Your task to perform on an android device: Search for seafood restaurants on Google Maps Image 0: 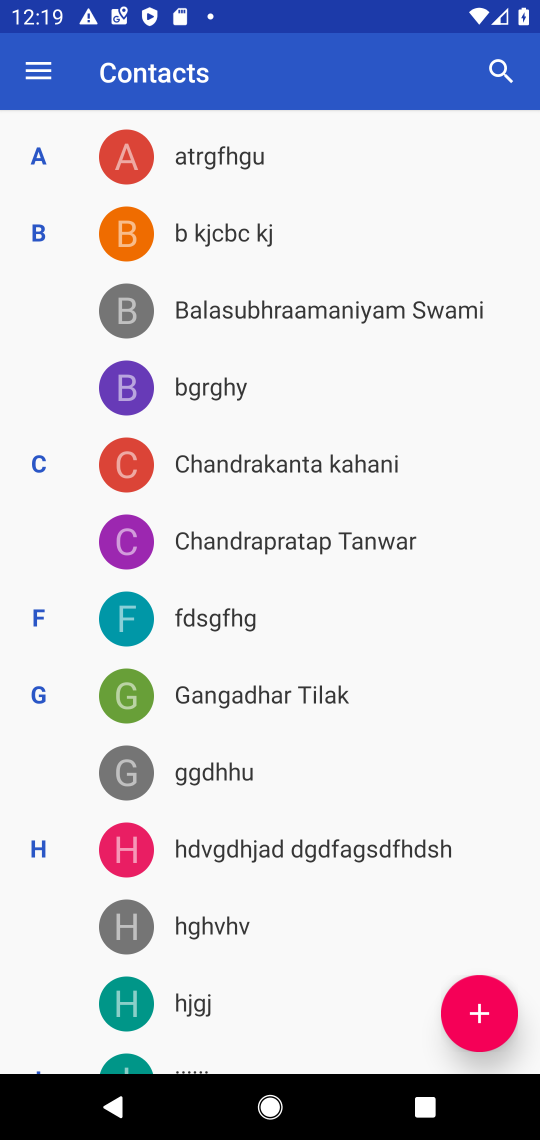
Step 0: press home button
Your task to perform on an android device: Search for seafood restaurants on Google Maps Image 1: 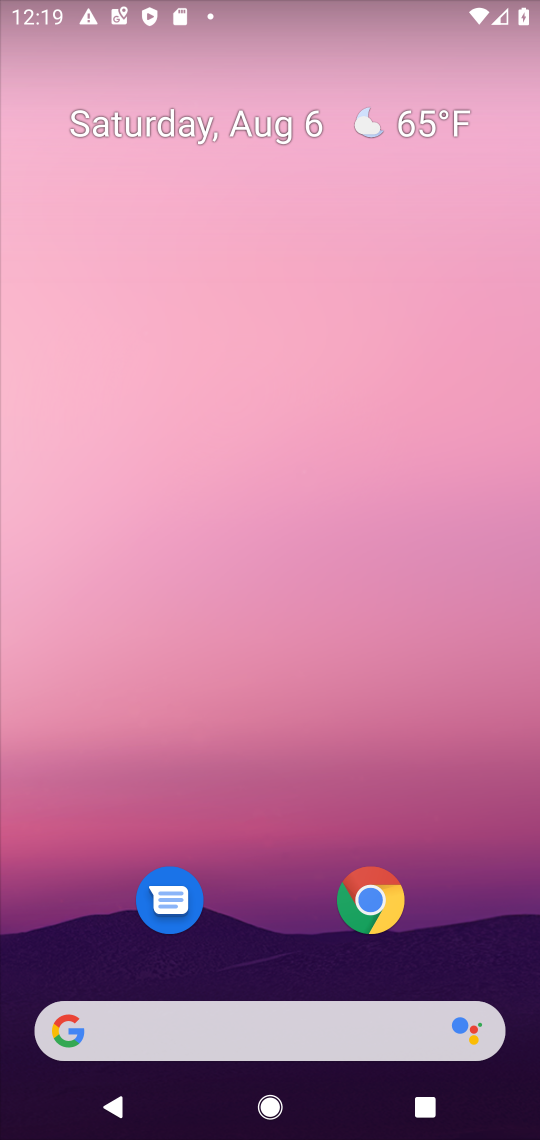
Step 1: drag from (274, 679) to (295, 120)
Your task to perform on an android device: Search for seafood restaurants on Google Maps Image 2: 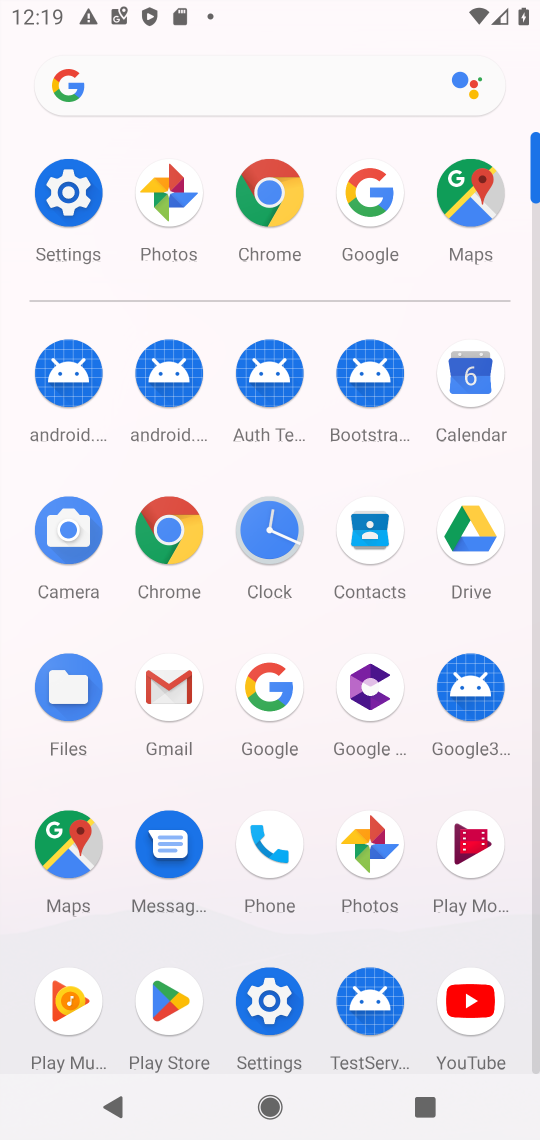
Step 2: click (70, 831)
Your task to perform on an android device: Search for seafood restaurants on Google Maps Image 3: 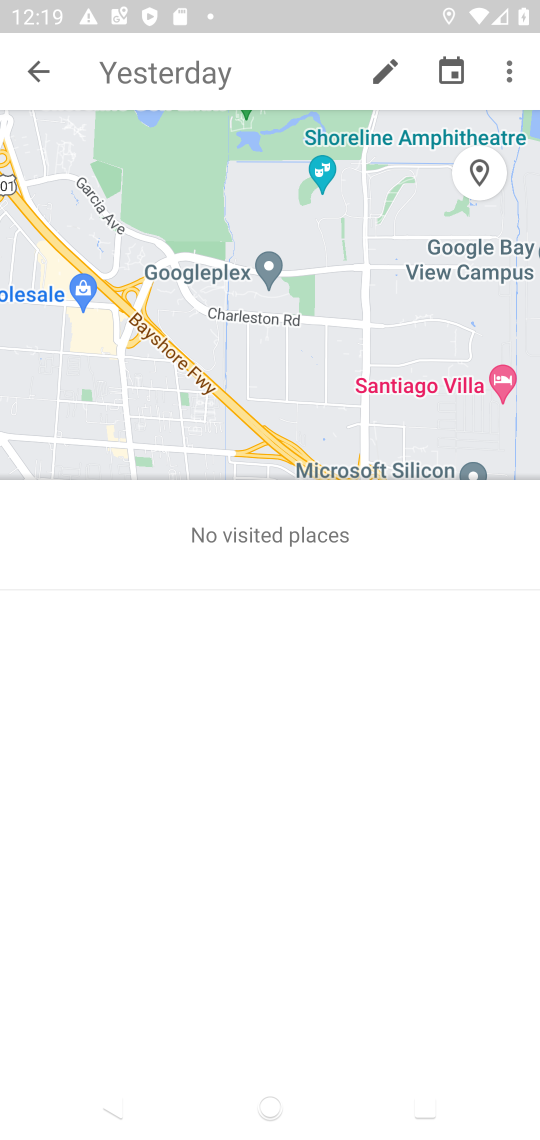
Step 3: click (46, 67)
Your task to perform on an android device: Search for seafood restaurants on Google Maps Image 4: 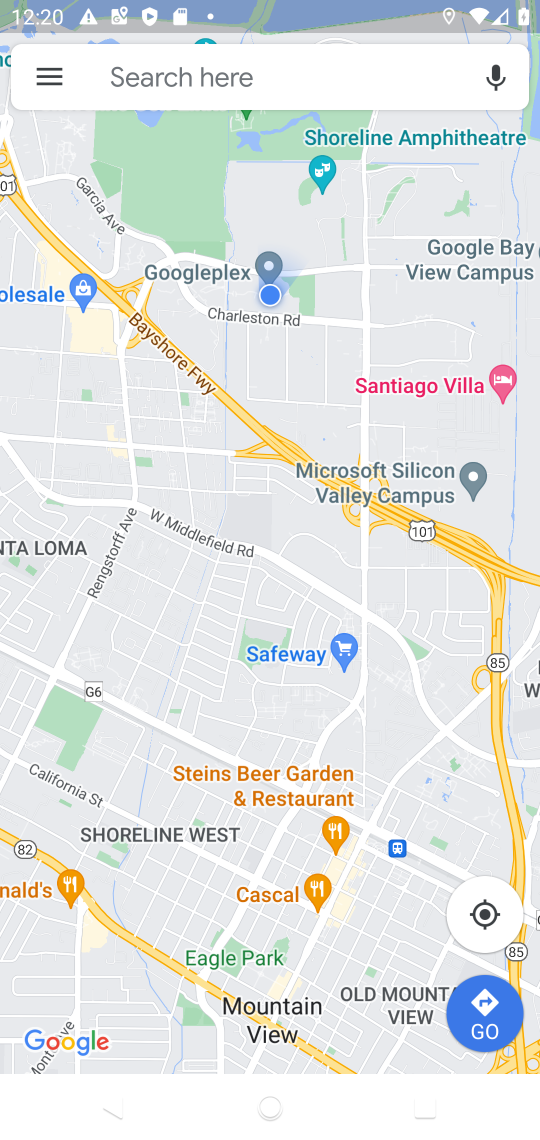
Step 4: click (253, 82)
Your task to perform on an android device: Search for seafood restaurants on Google Maps Image 5: 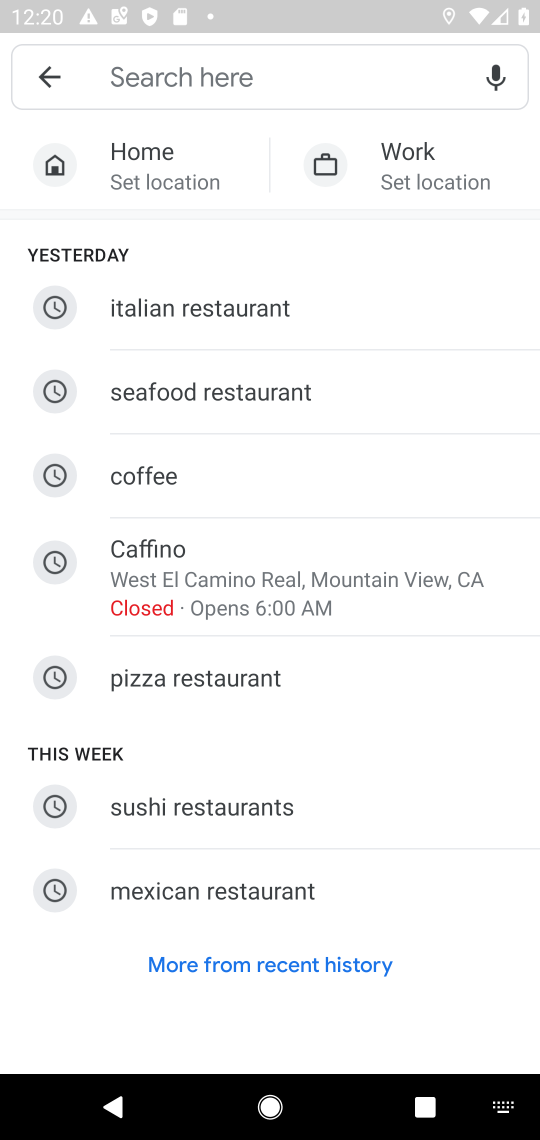
Step 5: click (305, 73)
Your task to perform on an android device: Search for seafood restaurants on Google Maps Image 6: 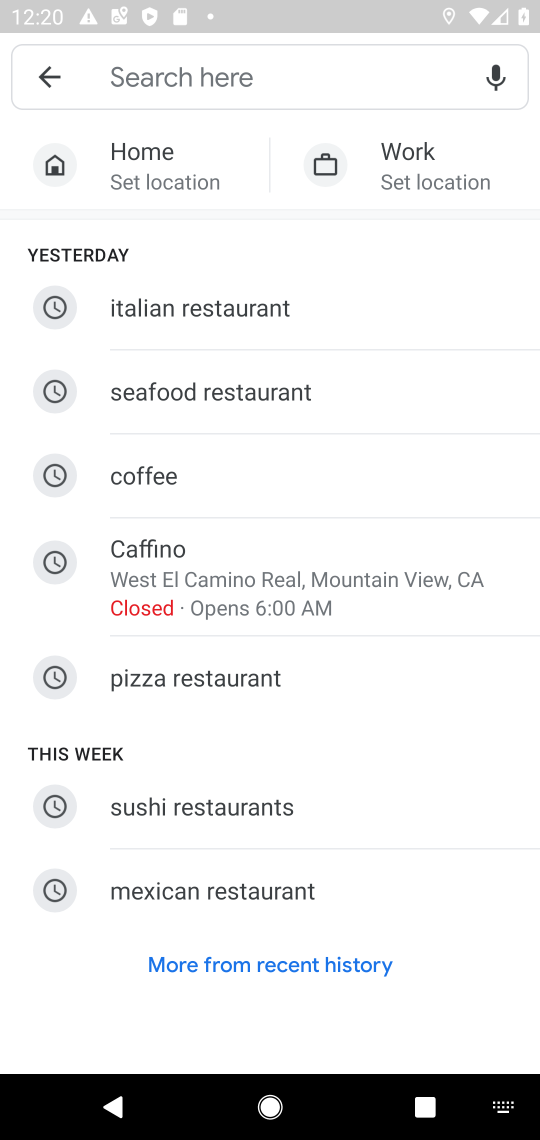
Step 6: click (350, 84)
Your task to perform on an android device: Search for seafood restaurants on Google Maps Image 7: 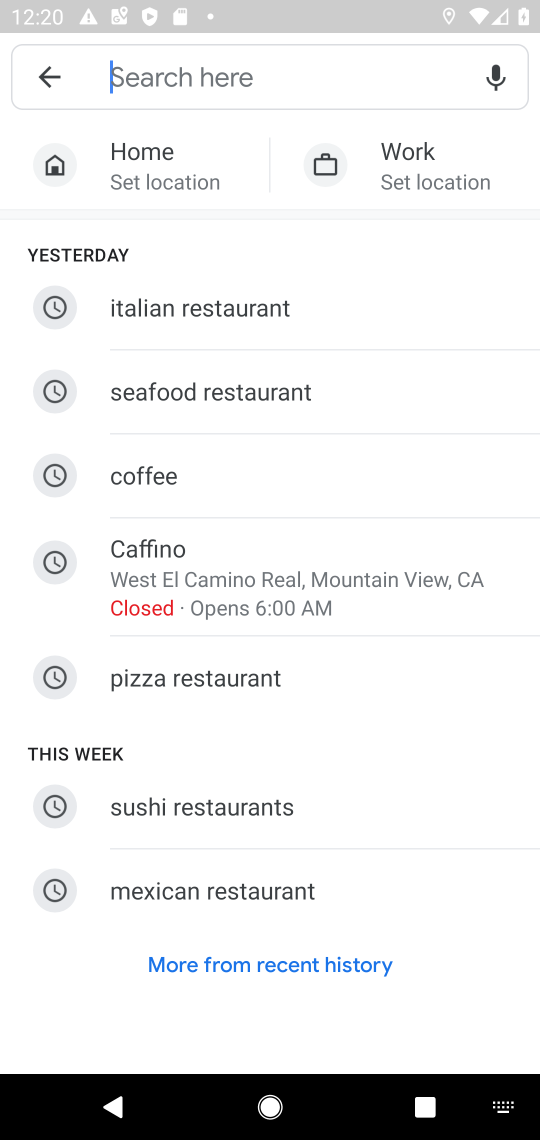
Step 7: type "seafood restaurants"
Your task to perform on an android device: Search for seafood restaurants on Google Maps Image 8: 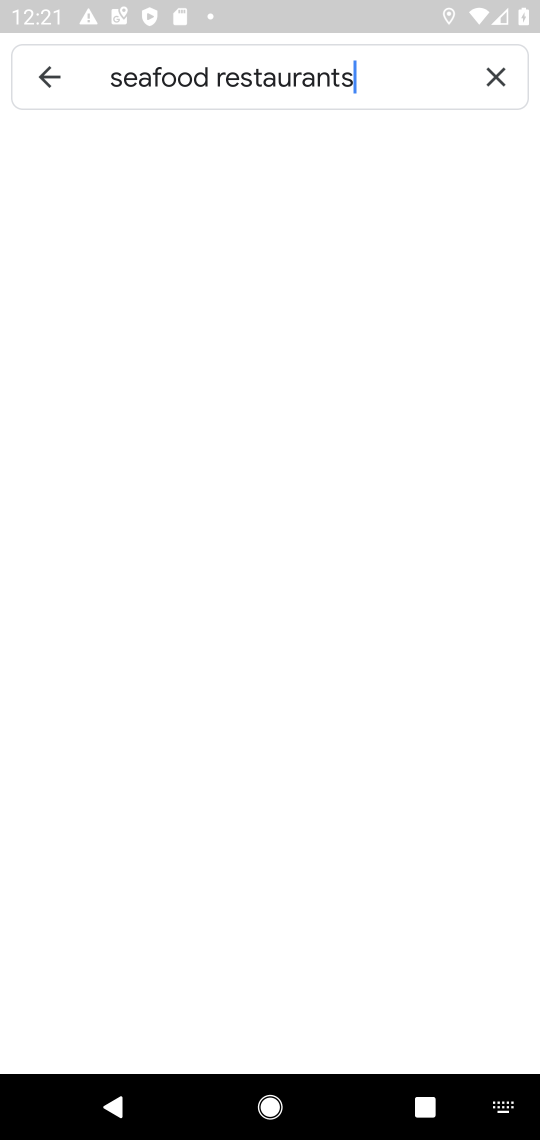
Step 8: type ""
Your task to perform on an android device: Search for seafood restaurants on Google Maps Image 9: 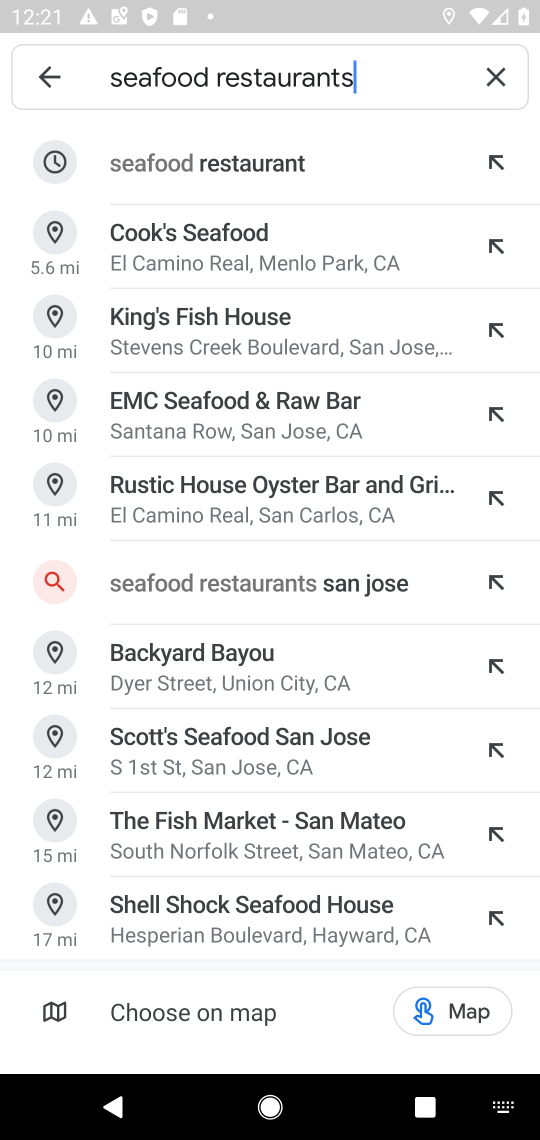
Step 9: click (202, 173)
Your task to perform on an android device: Search for seafood restaurants on Google Maps Image 10: 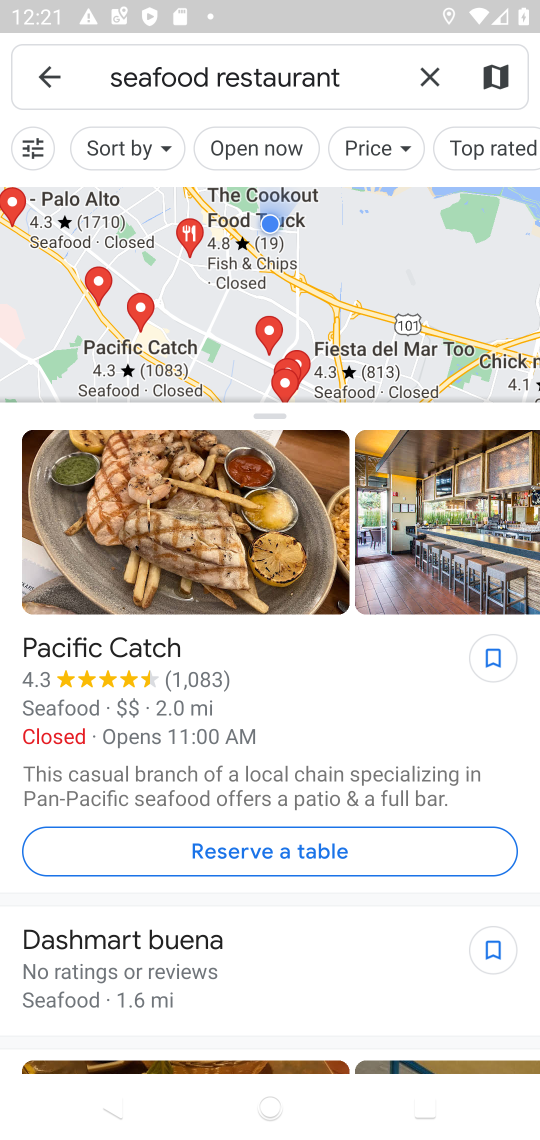
Step 10: task complete